Your task to perform on an android device: open app "PlayWell" (install if not already installed) and enter user name: "metric@gmail.com" and password: "bumblebee" Image 0: 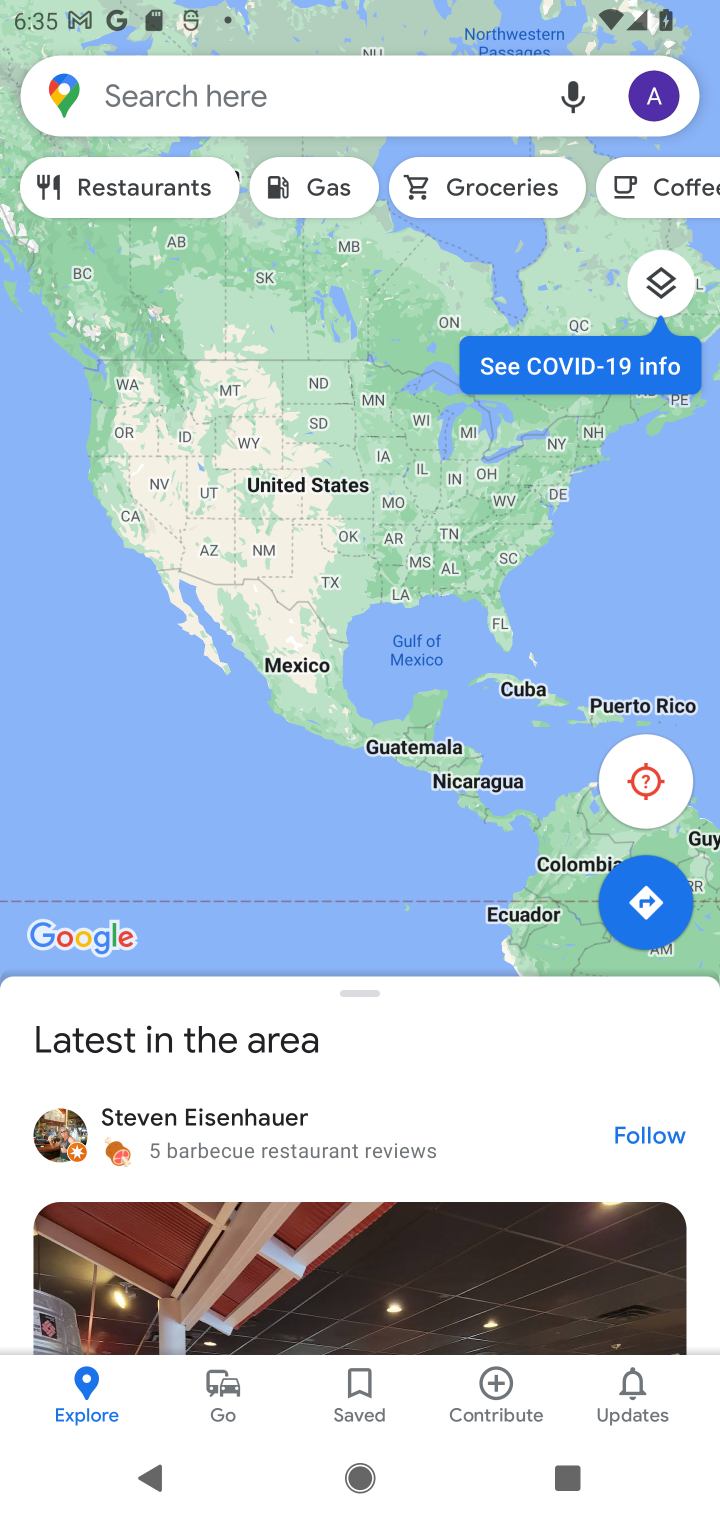
Step 0: press home button
Your task to perform on an android device: open app "PlayWell" (install if not already installed) and enter user name: "metric@gmail.com" and password: "bumblebee" Image 1: 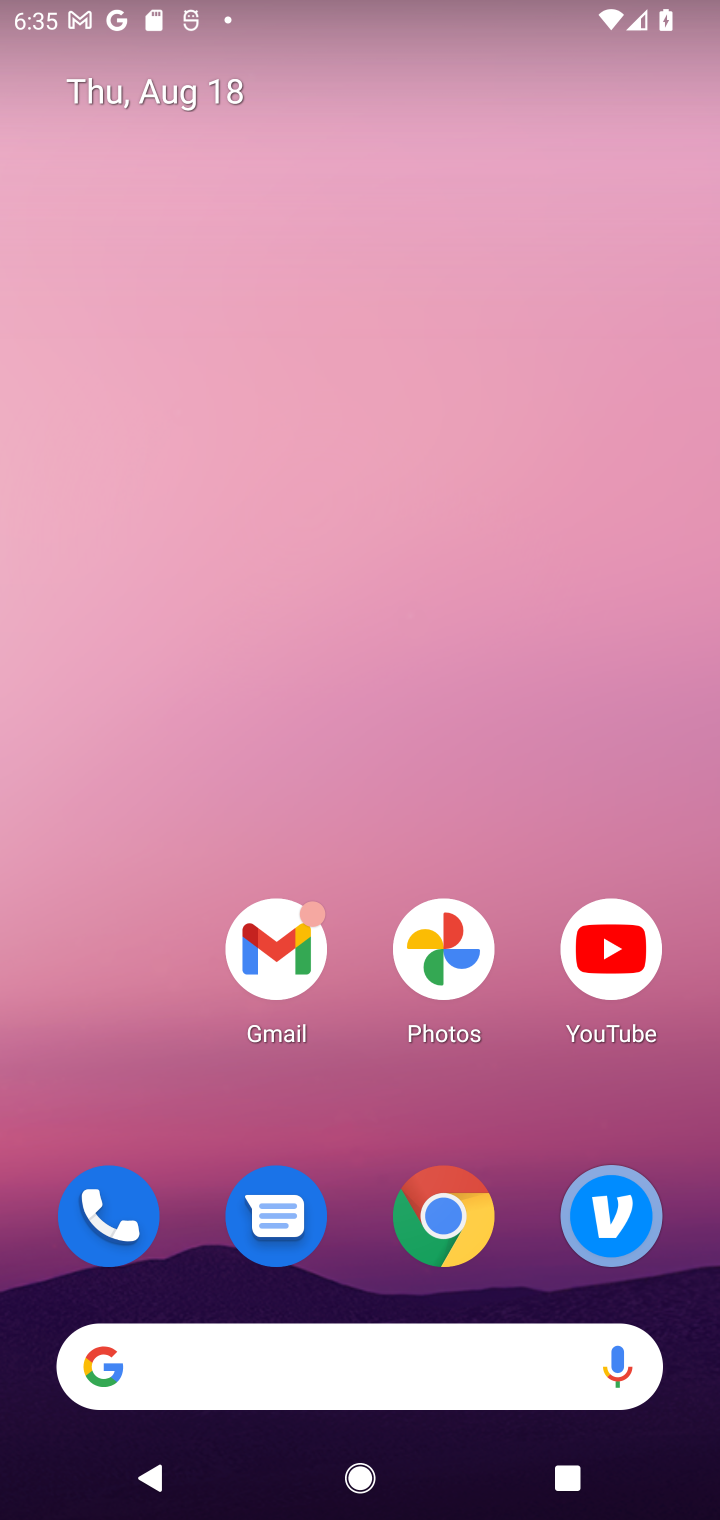
Step 1: drag from (522, 1103) to (531, 263)
Your task to perform on an android device: open app "PlayWell" (install if not already installed) and enter user name: "metric@gmail.com" and password: "bumblebee" Image 2: 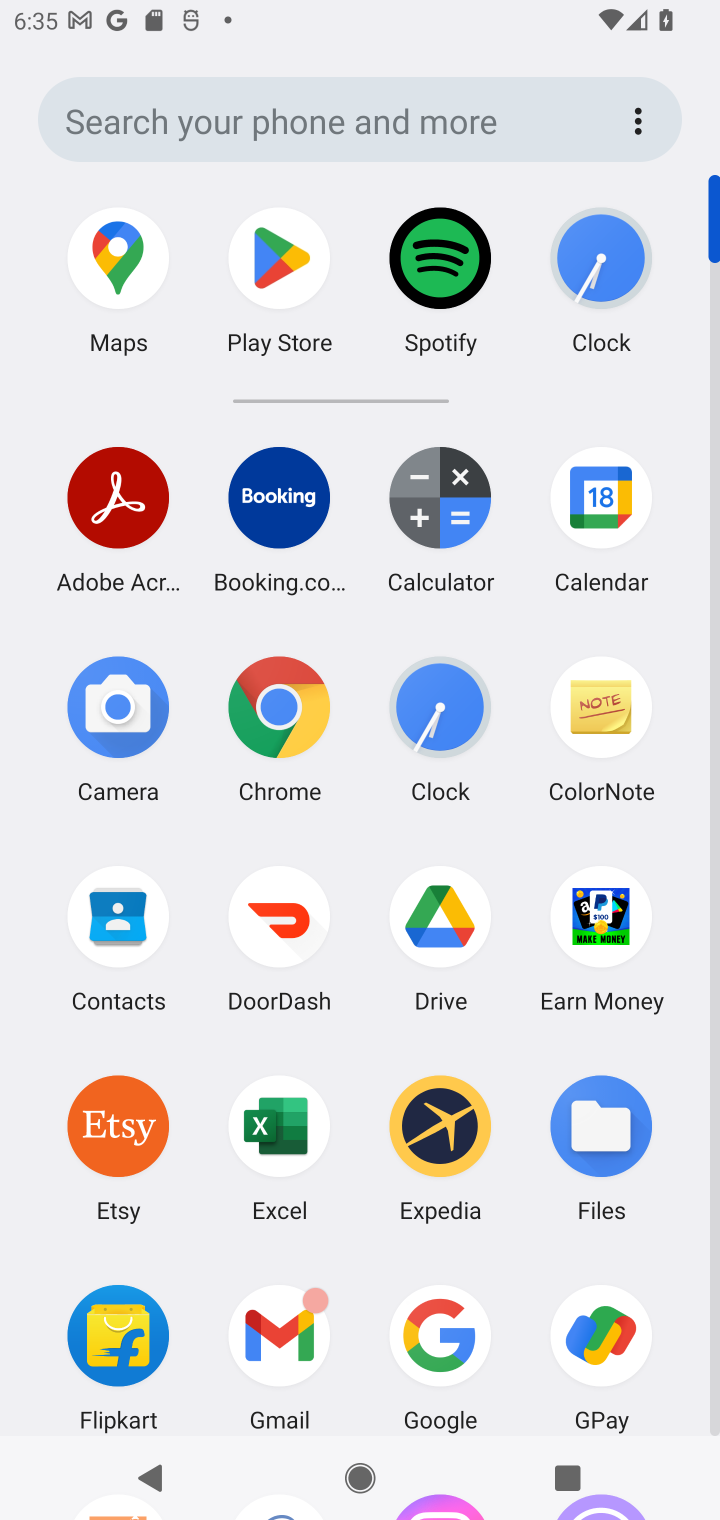
Step 2: drag from (524, 1239) to (497, 78)
Your task to perform on an android device: open app "PlayWell" (install if not already installed) and enter user name: "metric@gmail.com" and password: "bumblebee" Image 3: 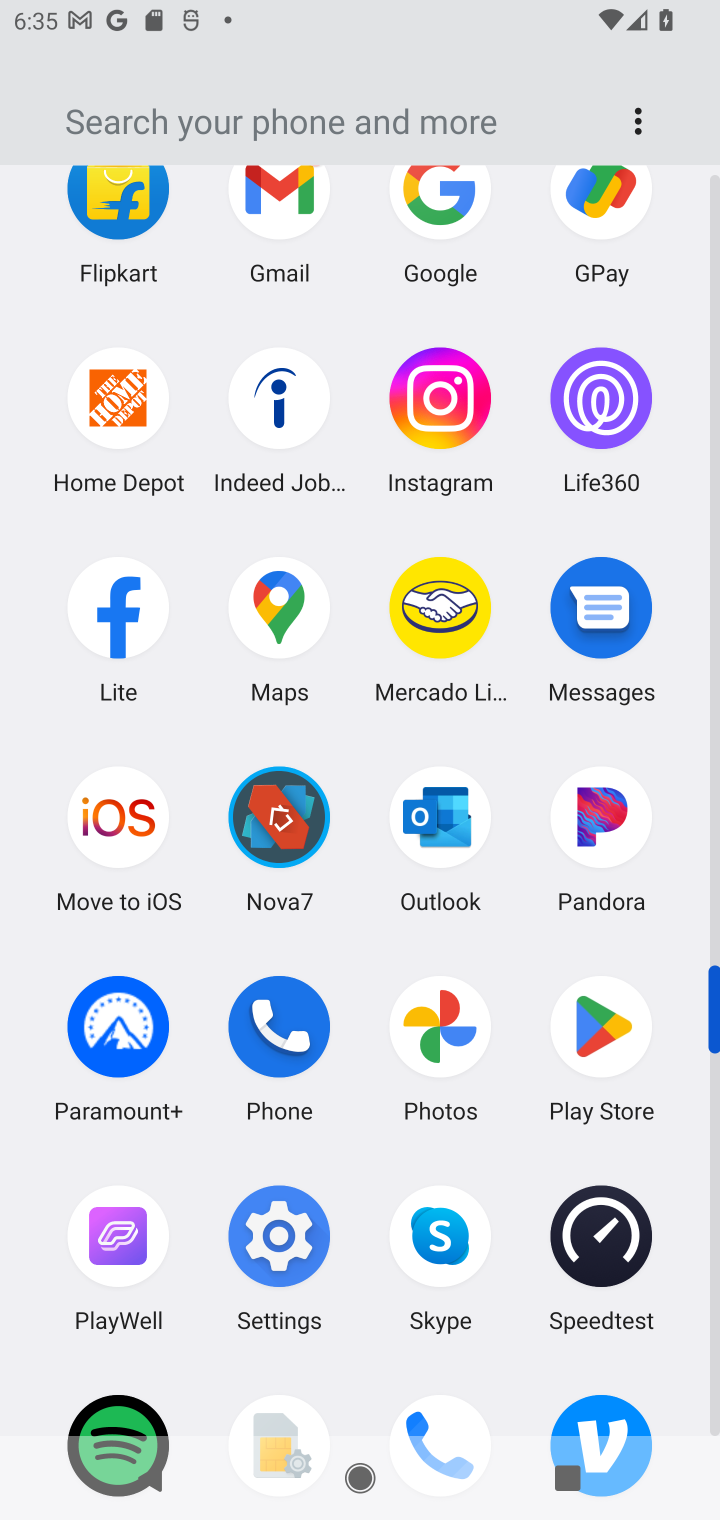
Step 3: click (589, 1023)
Your task to perform on an android device: open app "PlayWell" (install if not already installed) and enter user name: "metric@gmail.com" and password: "bumblebee" Image 4: 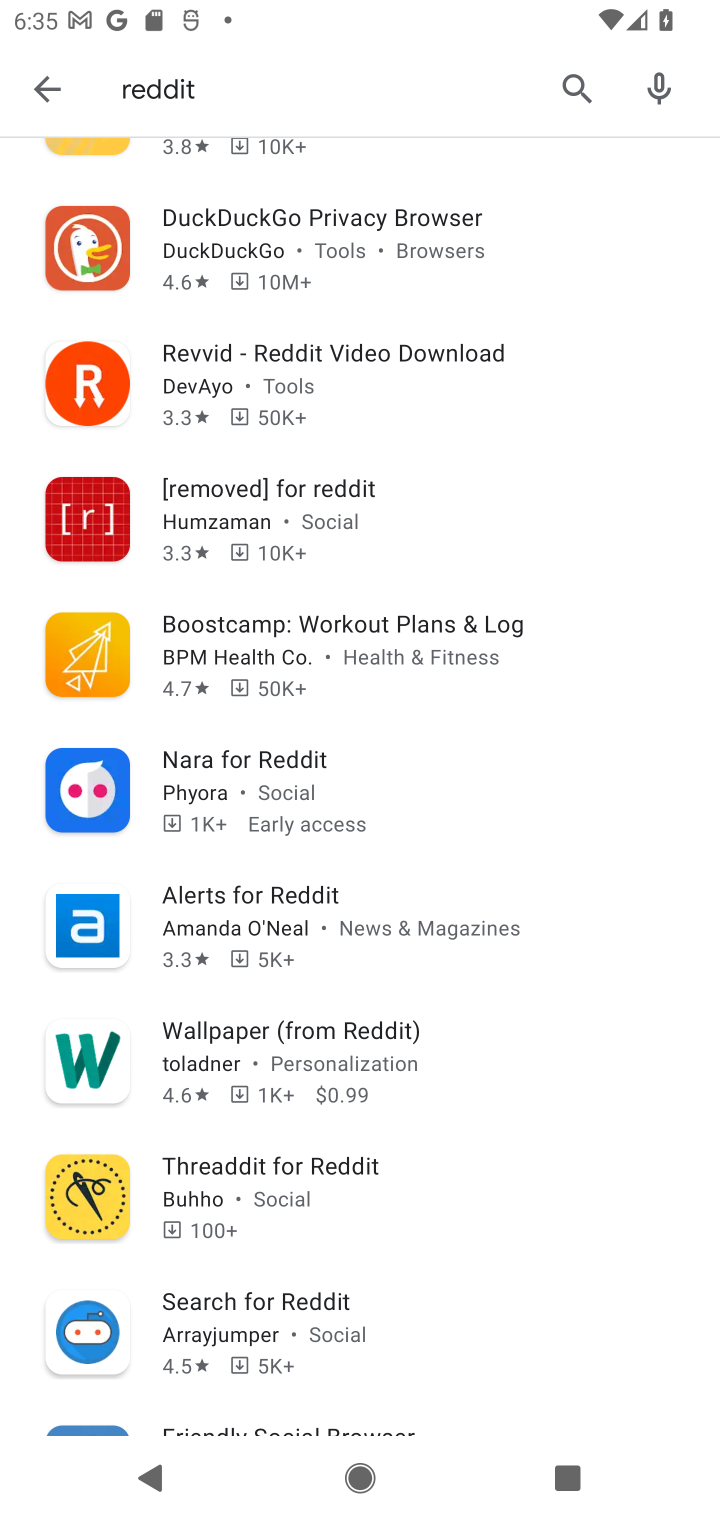
Step 4: click (571, 81)
Your task to perform on an android device: open app "PlayWell" (install if not already installed) and enter user name: "metric@gmail.com" and password: "bumblebee" Image 5: 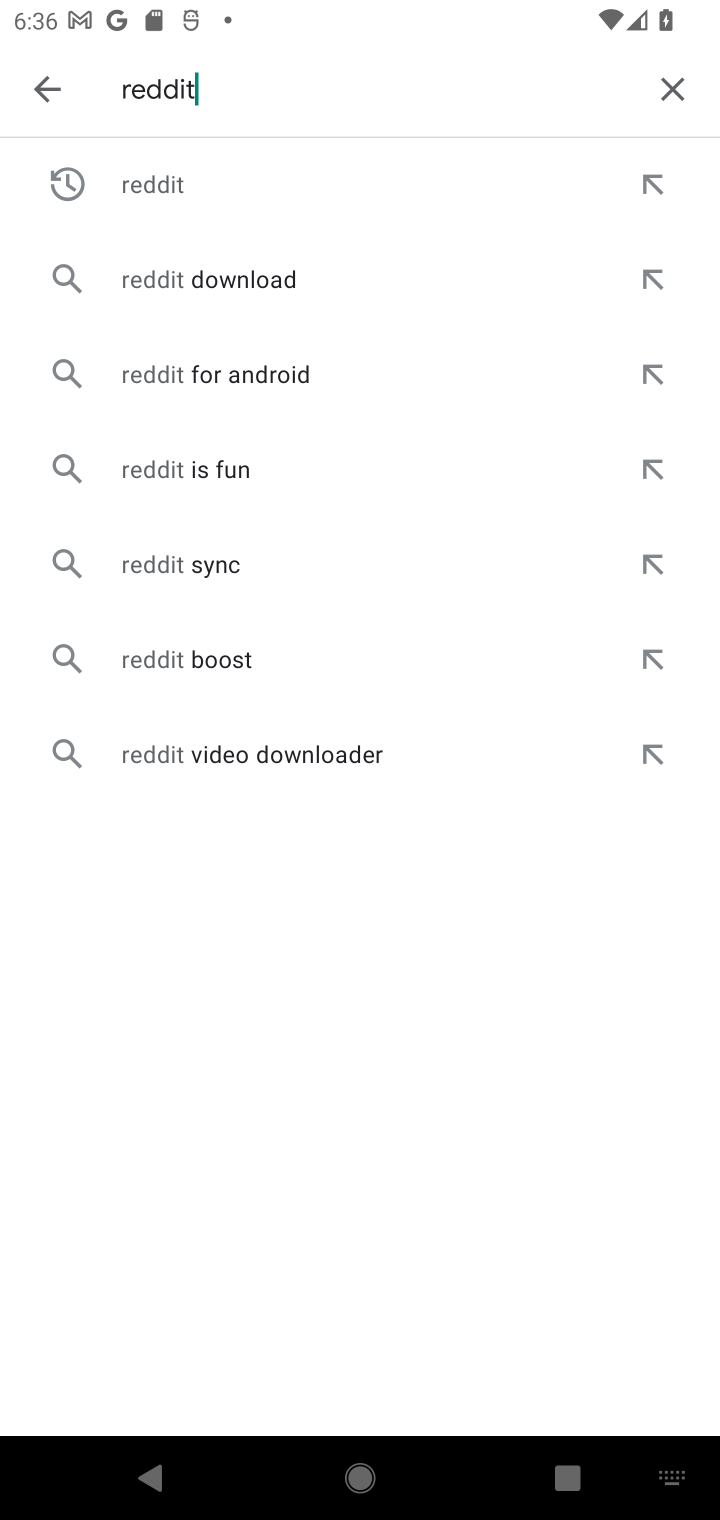
Step 5: click (675, 86)
Your task to perform on an android device: open app "PlayWell" (install if not already installed) and enter user name: "metric@gmail.com" and password: "bumblebee" Image 6: 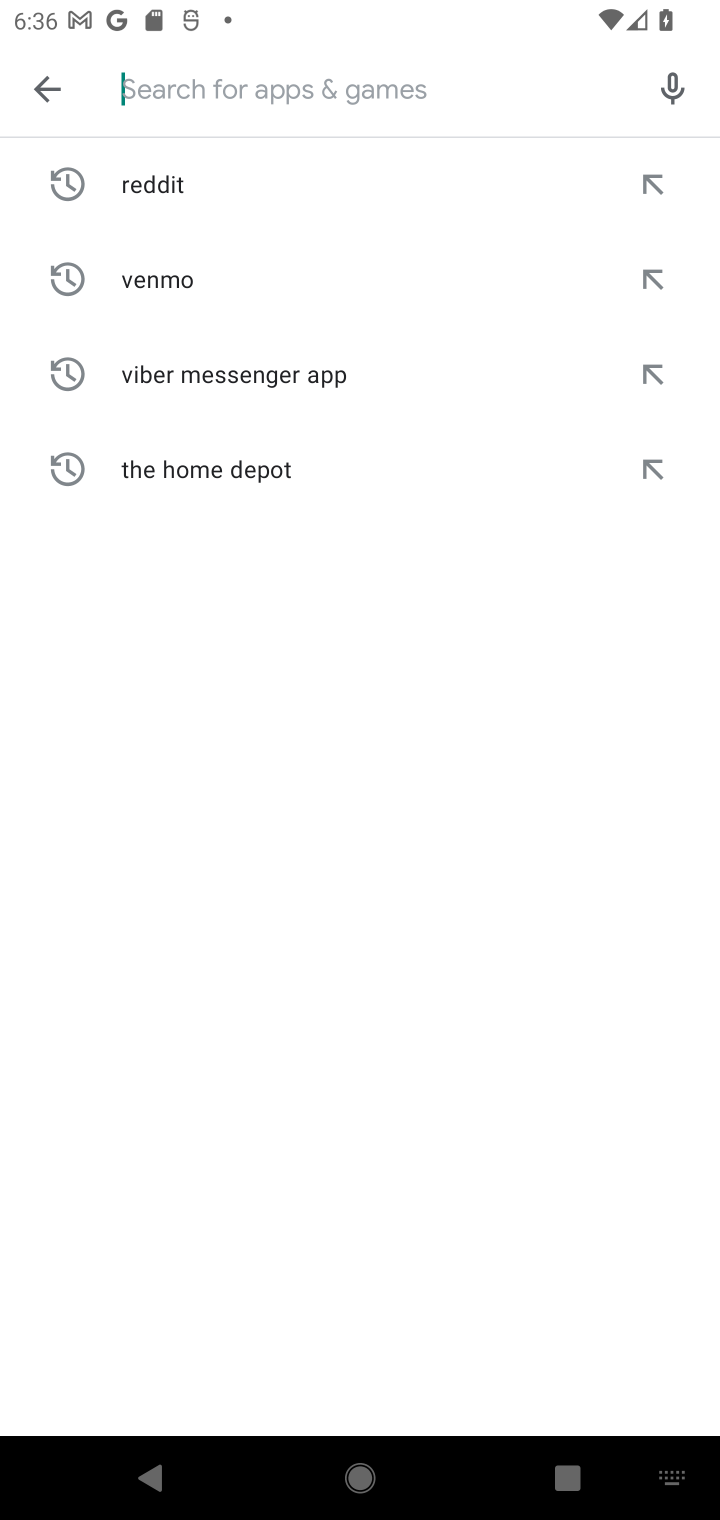
Step 6: type "PlayWell"
Your task to perform on an android device: open app "PlayWell" (install if not already installed) and enter user name: "metric@gmail.com" and password: "bumblebee" Image 7: 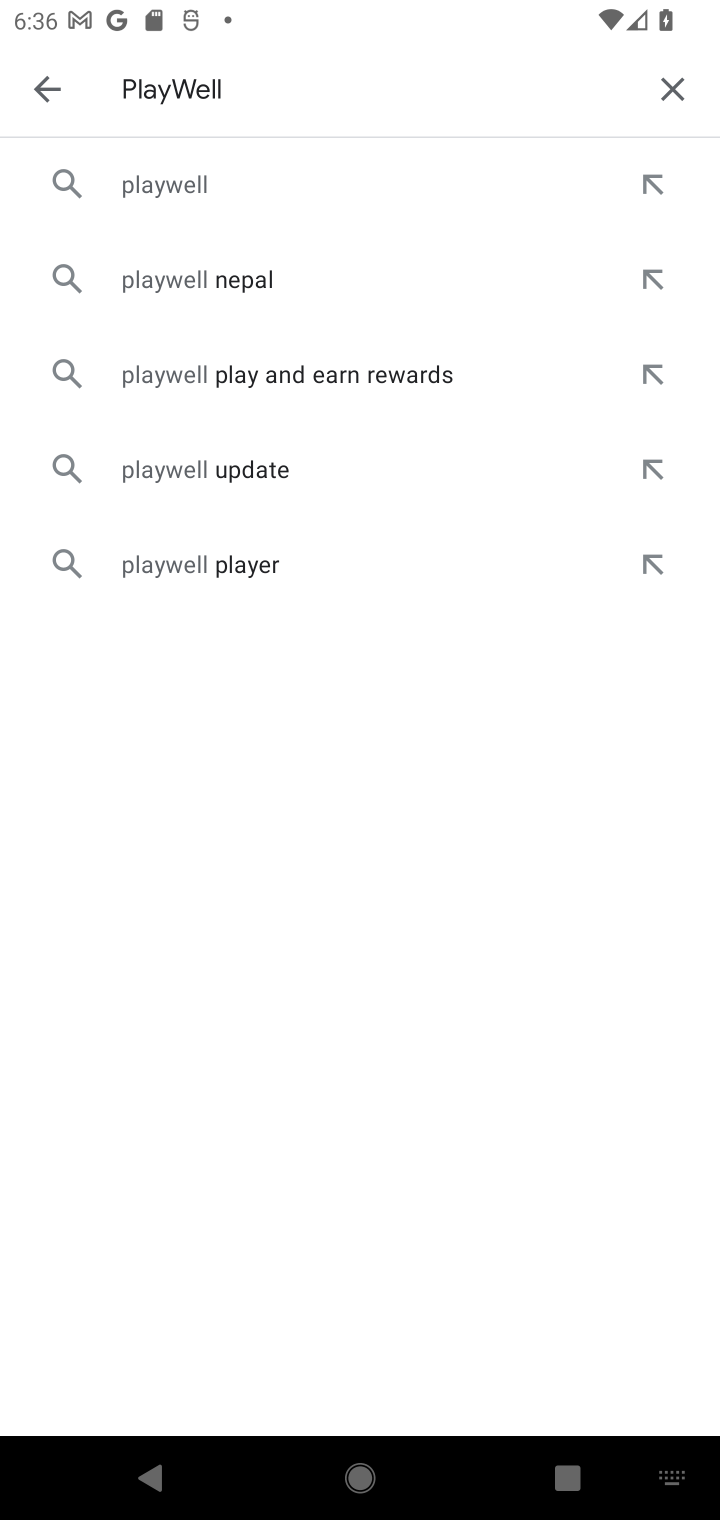
Step 7: click (168, 173)
Your task to perform on an android device: open app "PlayWell" (install if not already installed) and enter user name: "metric@gmail.com" and password: "bumblebee" Image 8: 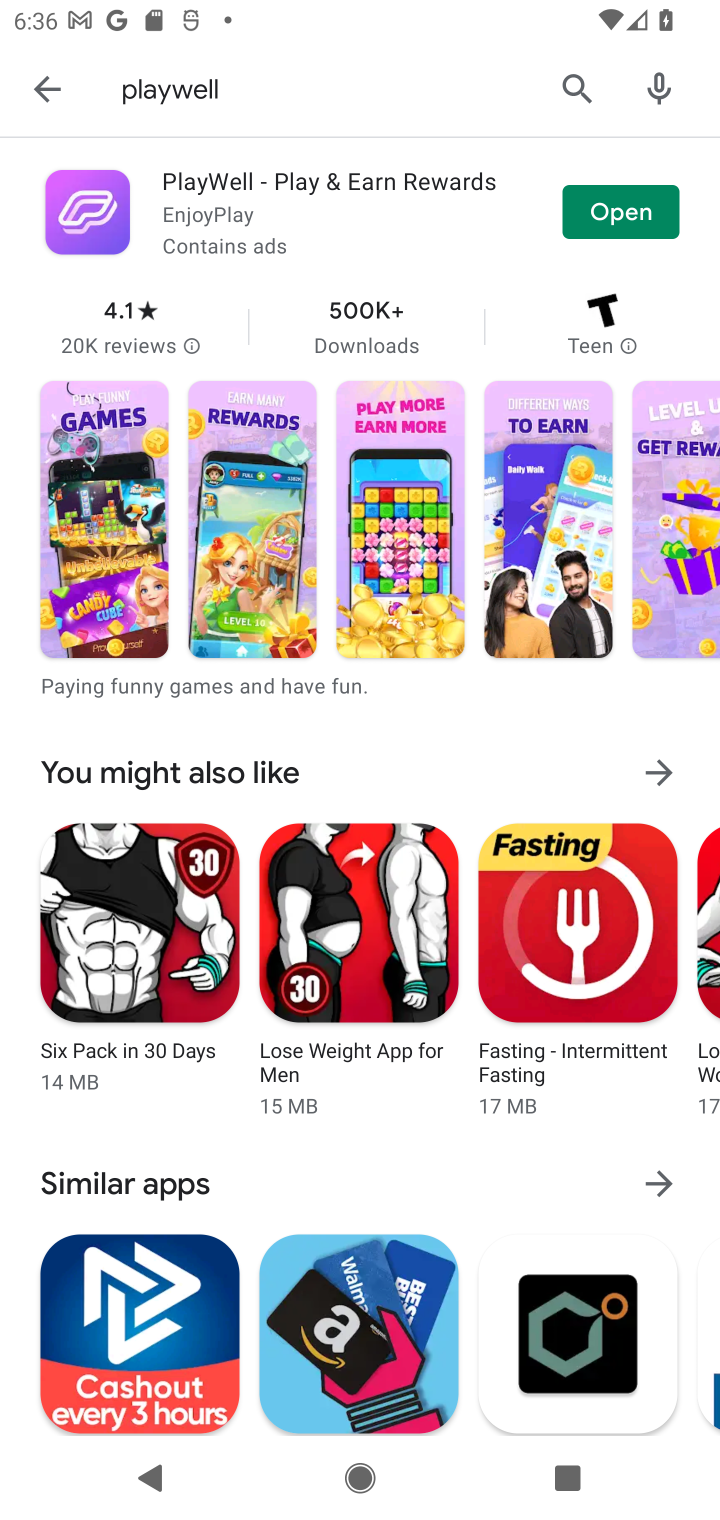
Step 8: click (626, 217)
Your task to perform on an android device: open app "PlayWell" (install if not already installed) and enter user name: "metric@gmail.com" and password: "bumblebee" Image 9: 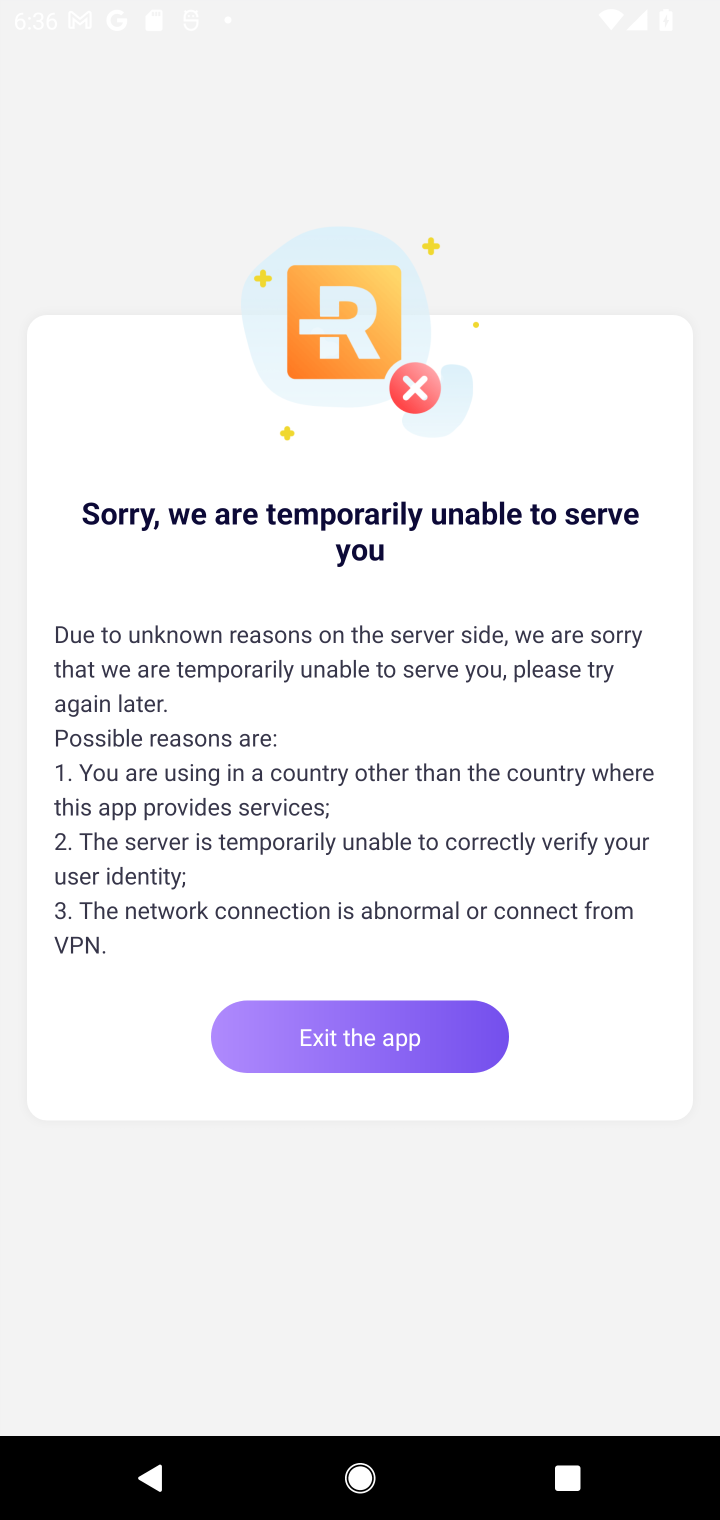
Step 9: click (349, 1040)
Your task to perform on an android device: open app "PlayWell" (install if not already installed) and enter user name: "metric@gmail.com" and password: "bumblebee" Image 10: 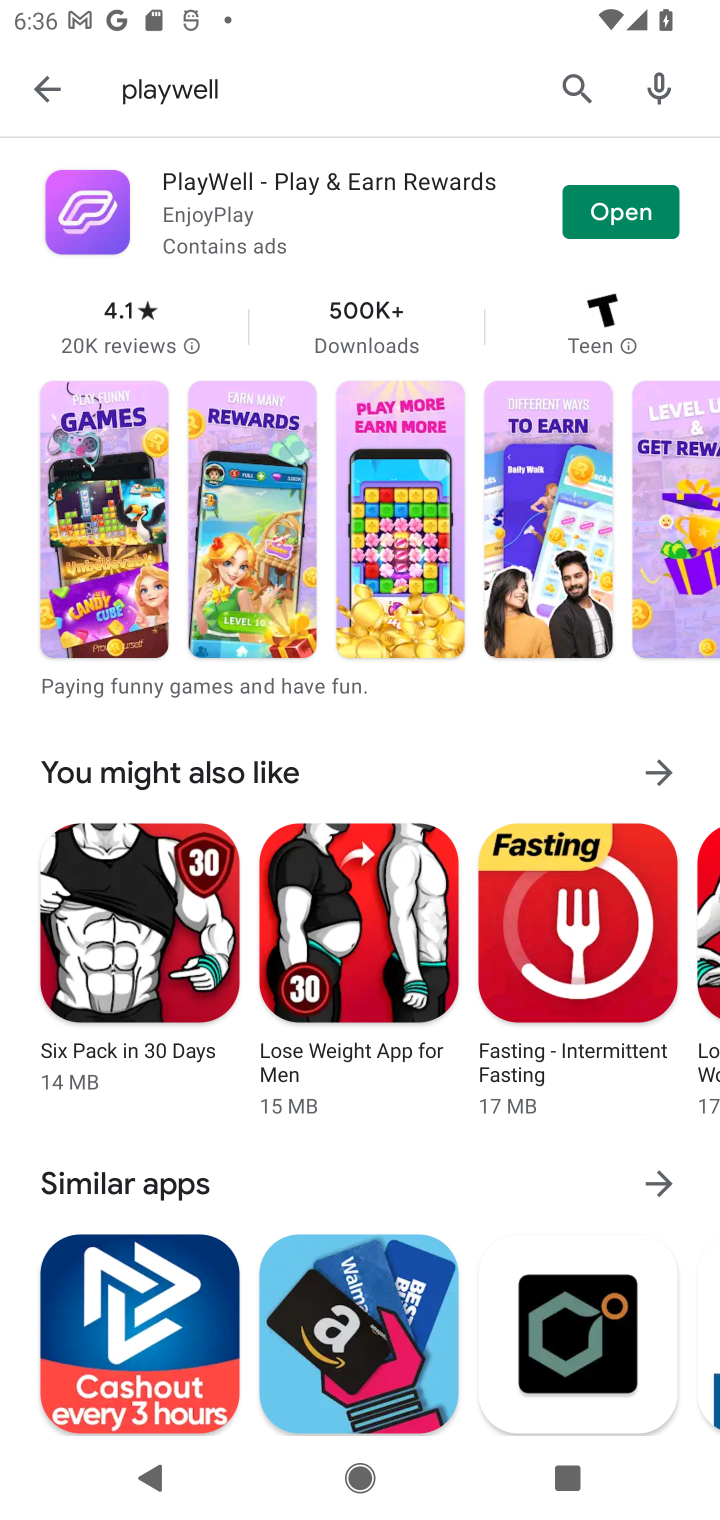
Step 10: click (600, 219)
Your task to perform on an android device: open app "PlayWell" (install if not already installed) and enter user name: "metric@gmail.com" and password: "bumblebee" Image 11: 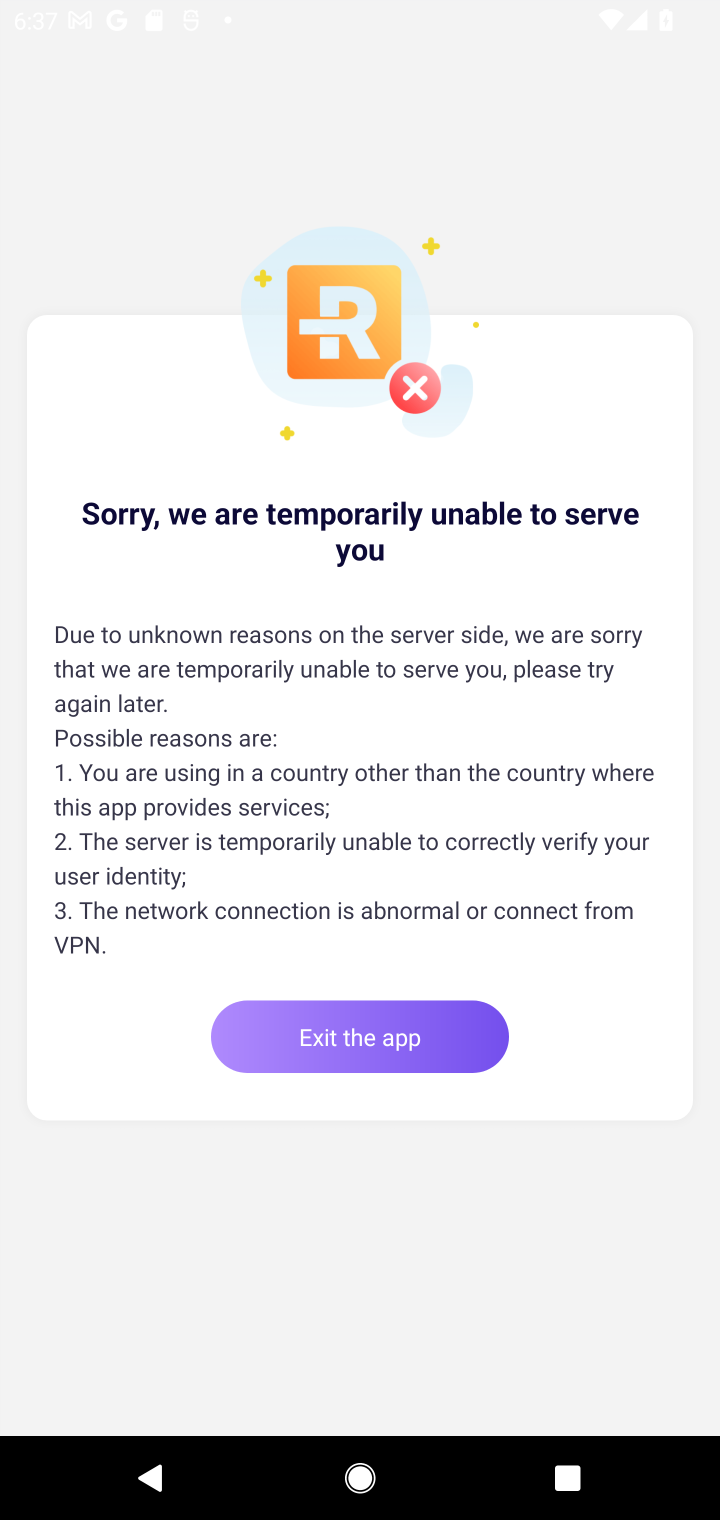
Step 11: task complete